Your task to perform on an android device: search for starred emails in the gmail app Image 0: 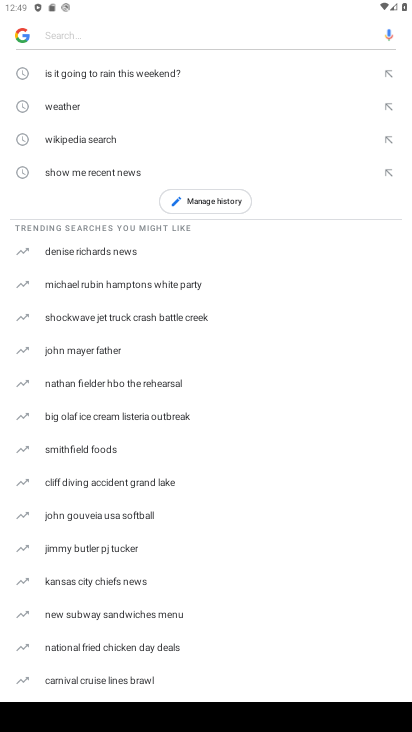
Step 0: press home button
Your task to perform on an android device: search for starred emails in the gmail app Image 1: 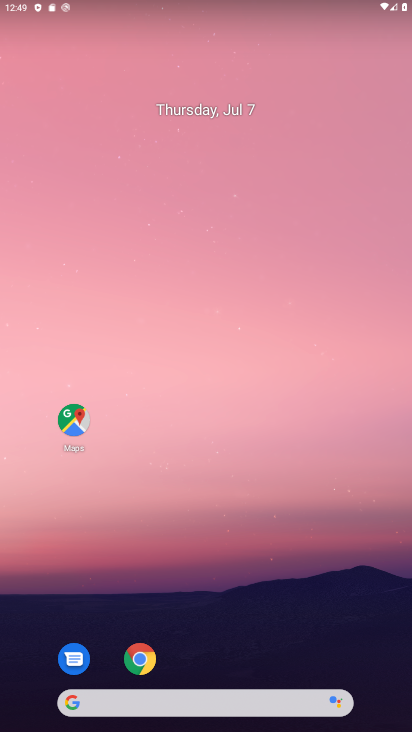
Step 1: drag from (191, 654) to (241, 113)
Your task to perform on an android device: search for starred emails in the gmail app Image 2: 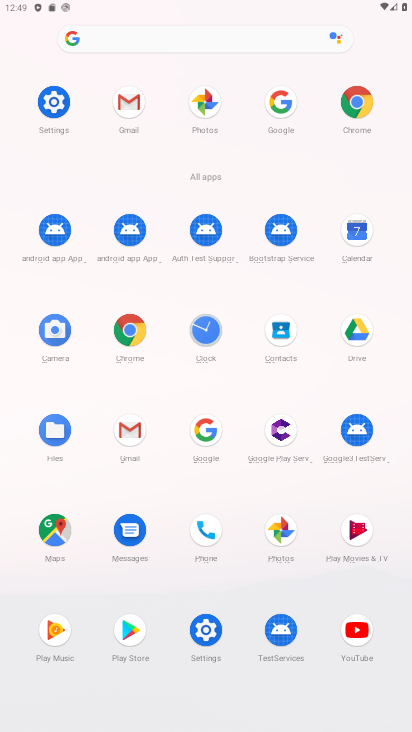
Step 2: click (121, 438)
Your task to perform on an android device: search for starred emails in the gmail app Image 3: 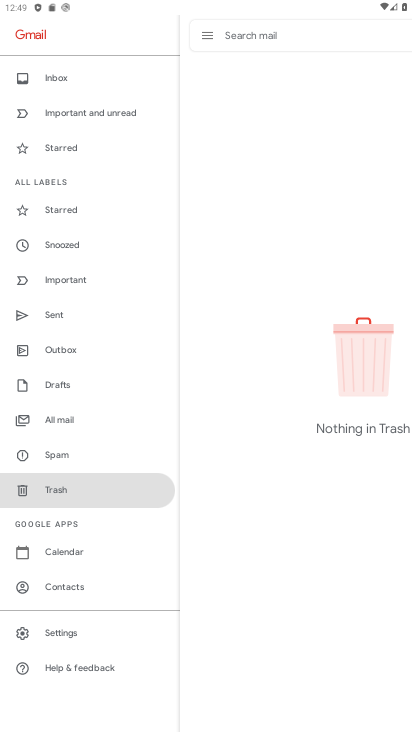
Step 3: click (128, 219)
Your task to perform on an android device: search for starred emails in the gmail app Image 4: 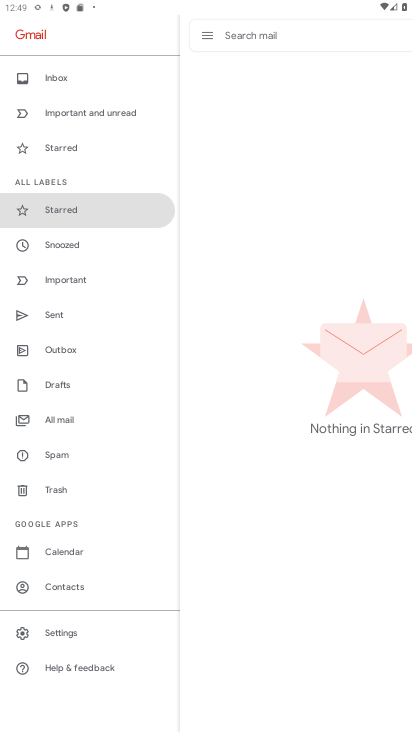
Step 4: task complete